Your task to perform on an android device: View the shopping cart on newegg.com. Search for "apple airpods" on newegg.com, select the first entry, add it to the cart, then select checkout. Image 0: 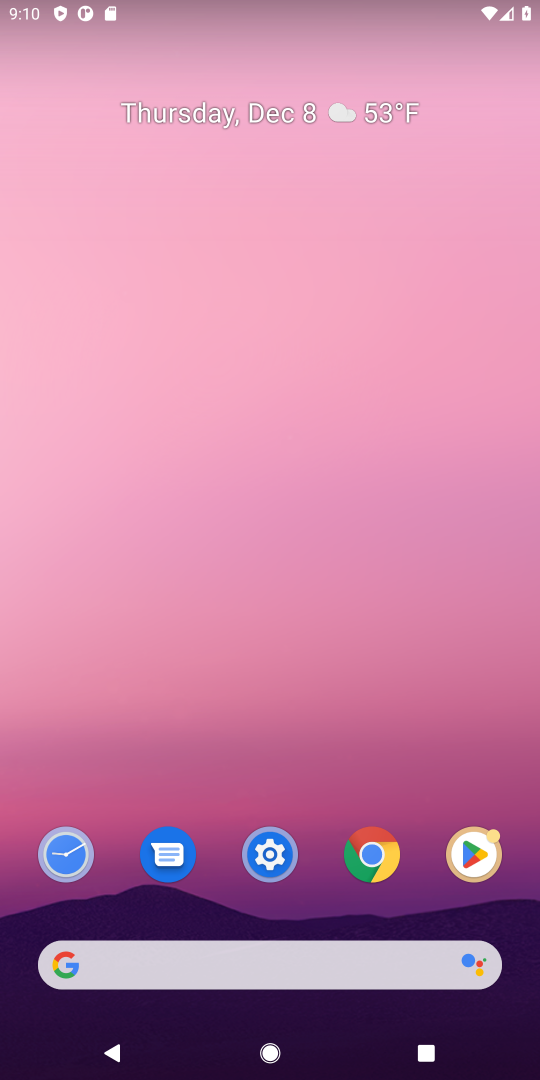
Step 0: press home button
Your task to perform on an android device: View the shopping cart on newegg.com. Search for "apple airpods" on newegg.com, select the first entry, add it to the cart, then select checkout. Image 1: 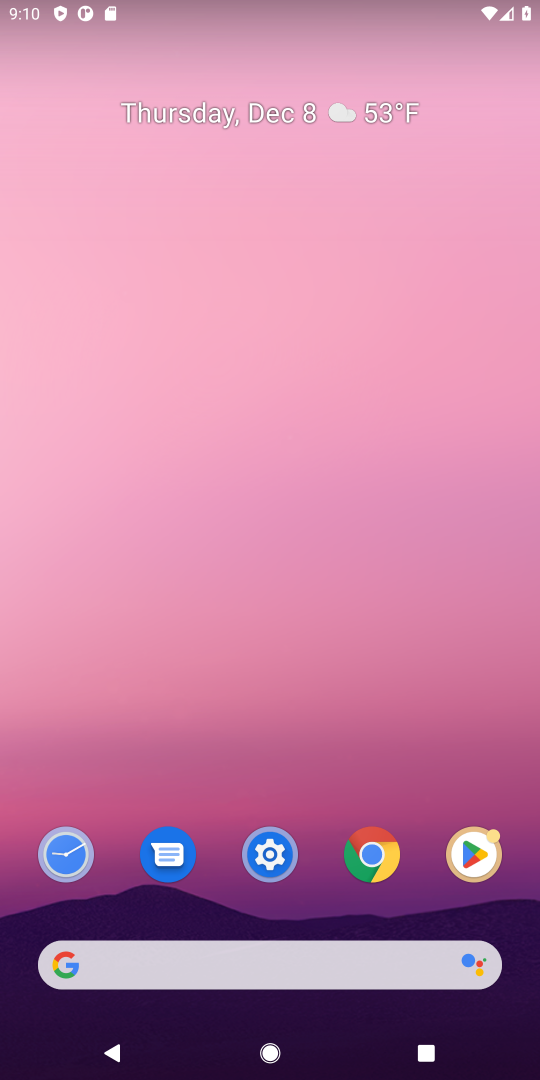
Step 1: click (84, 959)
Your task to perform on an android device: View the shopping cart on newegg.com. Search for "apple airpods" on newegg.com, select the first entry, add it to the cart, then select checkout. Image 2: 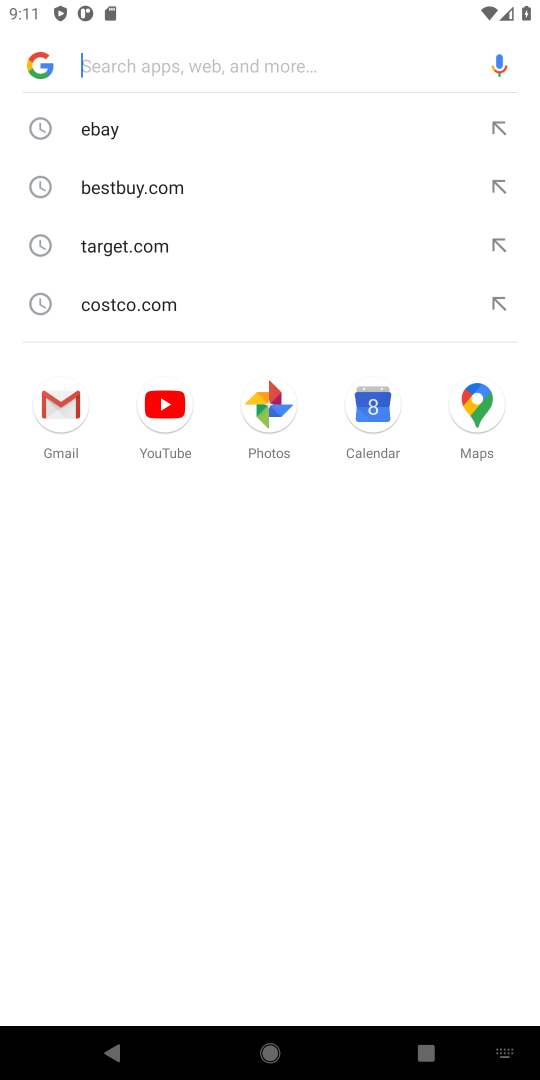
Step 2: type "newegg.com"
Your task to perform on an android device: View the shopping cart on newegg.com. Search for "apple airpods" on newegg.com, select the first entry, add it to the cart, then select checkout. Image 3: 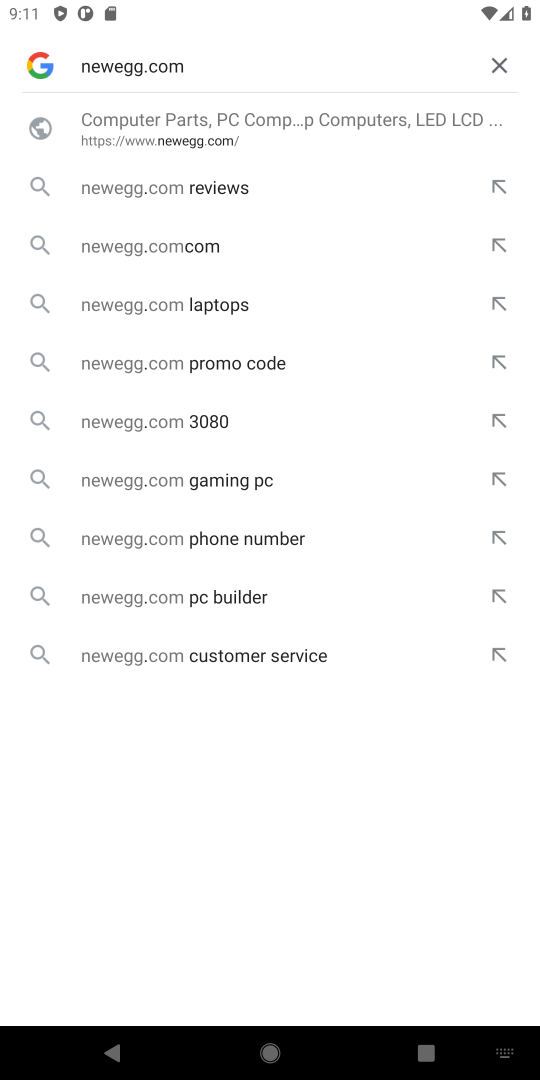
Step 3: press enter
Your task to perform on an android device: View the shopping cart on newegg.com. Search for "apple airpods" on newegg.com, select the first entry, add it to the cart, then select checkout. Image 4: 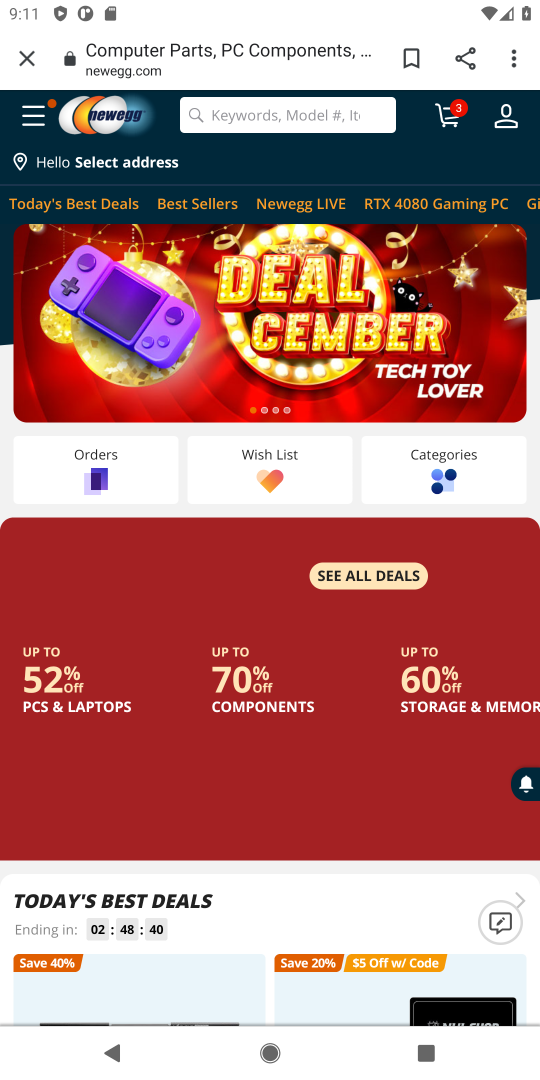
Step 4: click (450, 111)
Your task to perform on an android device: View the shopping cart on newegg.com. Search for "apple airpods" on newegg.com, select the first entry, add it to the cart, then select checkout. Image 5: 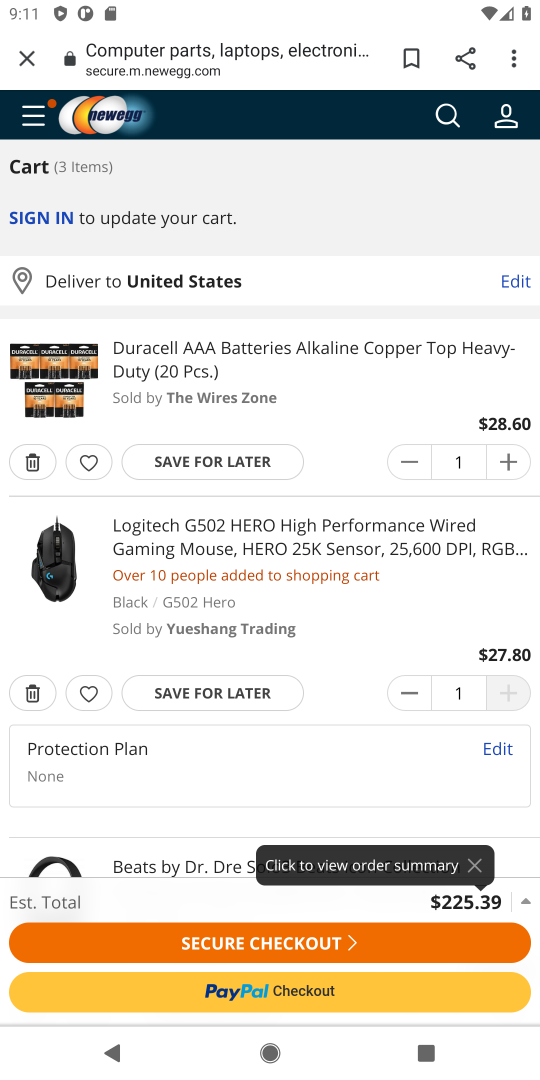
Step 5: click (444, 118)
Your task to perform on an android device: View the shopping cart on newegg.com. Search for "apple airpods" on newegg.com, select the first entry, add it to the cart, then select checkout. Image 6: 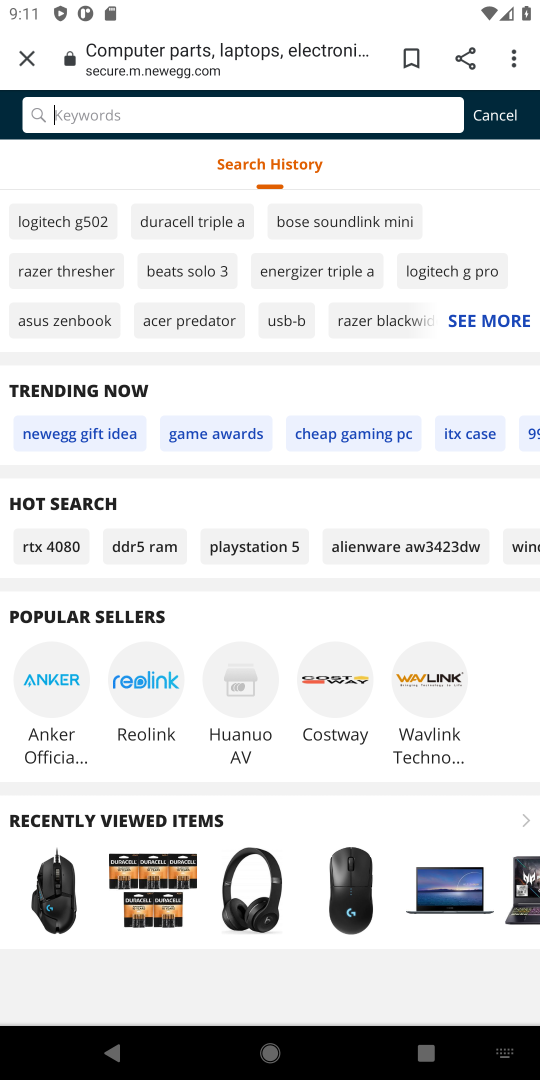
Step 6: type "apple airpods"
Your task to perform on an android device: View the shopping cart on newegg.com. Search for "apple airpods" on newegg.com, select the first entry, add it to the cart, then select checkout. Image 7: 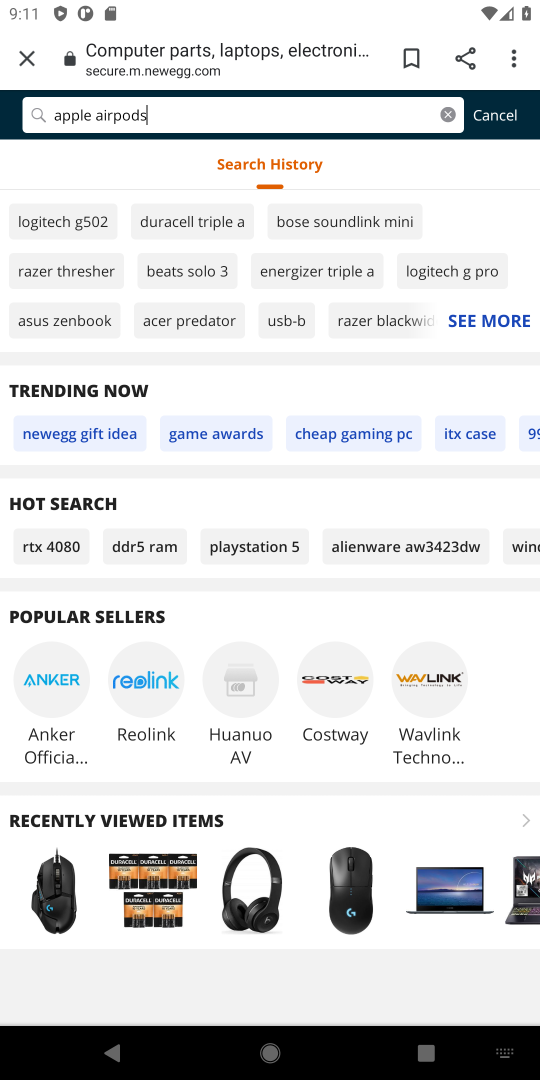
Step 7: press enter
Your task to perform on an android device: View the shopping cart on newegg.com. Search for "apple airpods" on newegg.com, select the first entry, add it to the cart, then select checkout. Image 8: 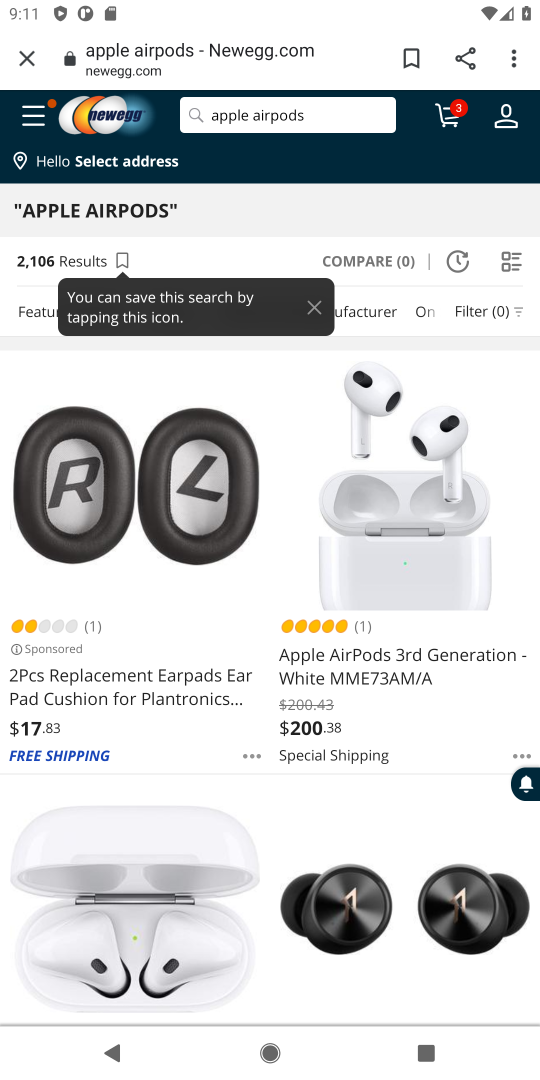
Step 8: click (353, 667)
Your task to perform on an android device: View the shopping cart on newegg.com. Search for "apple airpods" on newegg.com, select the first entry, add it to the cart, then select checkout. Image 9: 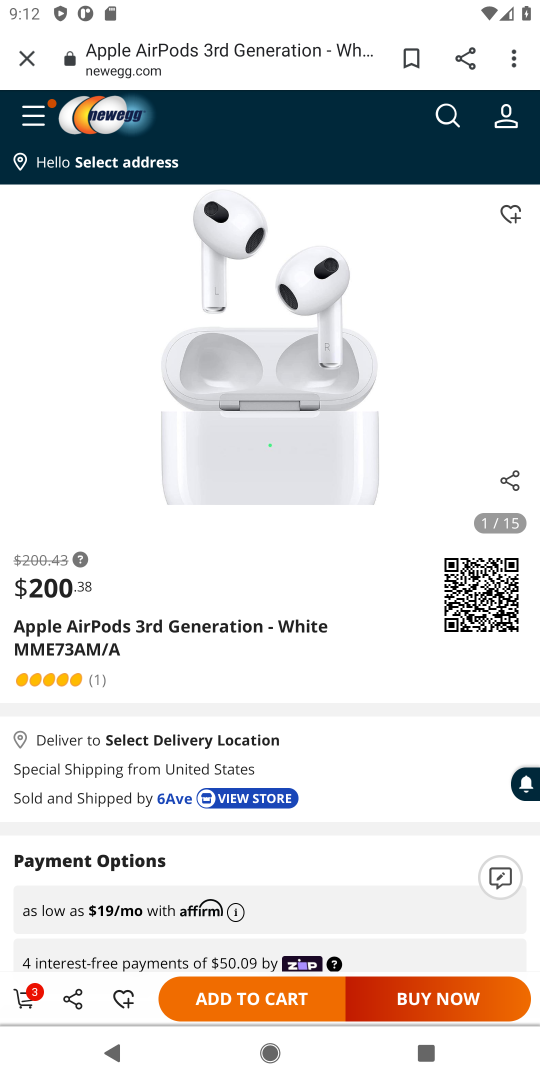
Step 9: click (211, 1006)
Your task to perform on an android device: View the shopping cart on newegg.com. Search for "apple airpods" on newegg.com, select the first entry, add it to the cart, then select checkout. Image 10: 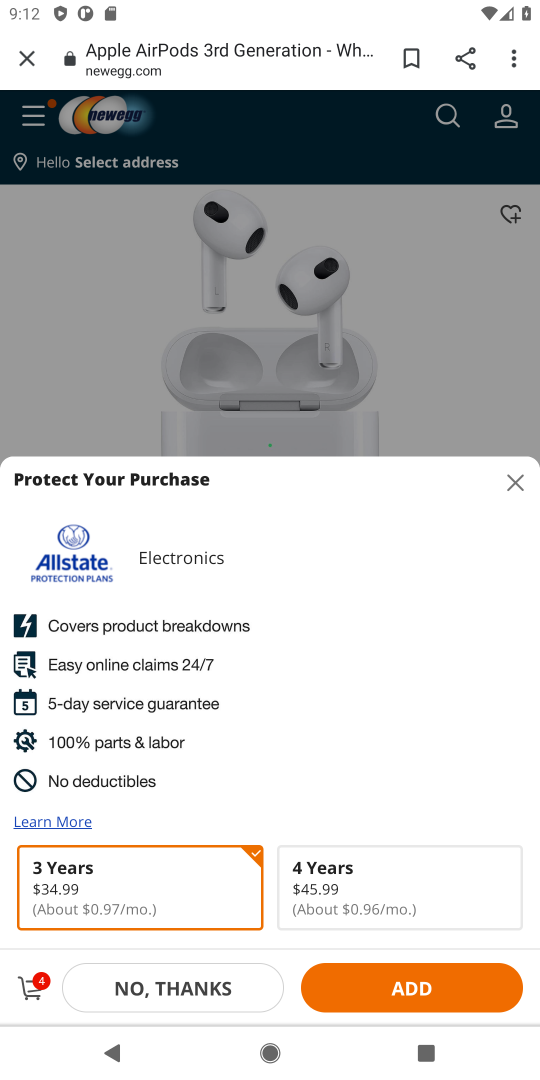
Step 10: click (157, 995)
Your task to perform on an android device: View the shopping cart on newegg.com. Search for "apple airpods" on newegg.com, select the first entry, add it to the cart, then select checkout. Image 11: 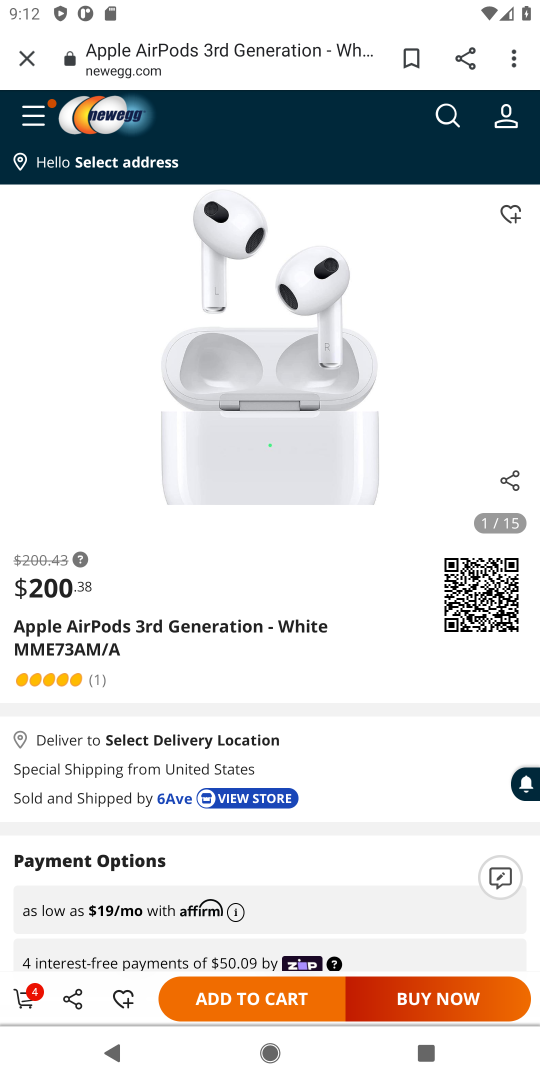
Step 11: task complete